Your task to perform on an android device: Search for Mexican restaurants on Maps Image 0: 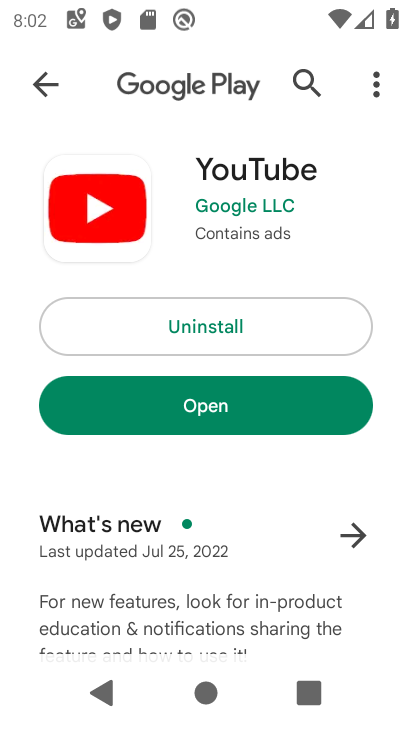
Step 0: press home button
Your task to perform on an android device: Search for Mexican restaurants on Maps Image 1: 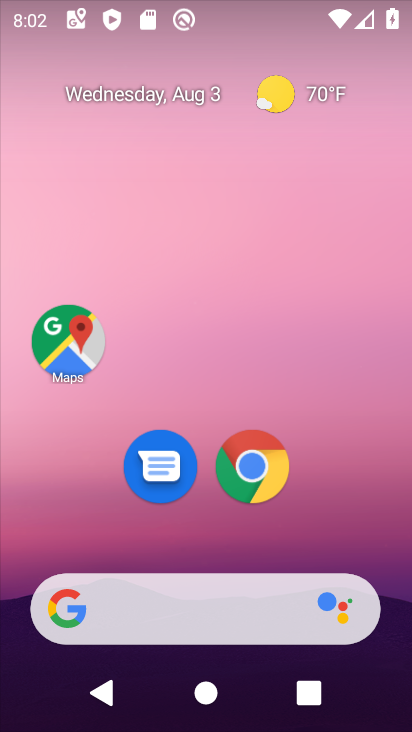
Step 1: drag from (326, 531) to (341, 58)
Your task to perform on an android device: Search for Mexican restaurants on Maps Image 2: 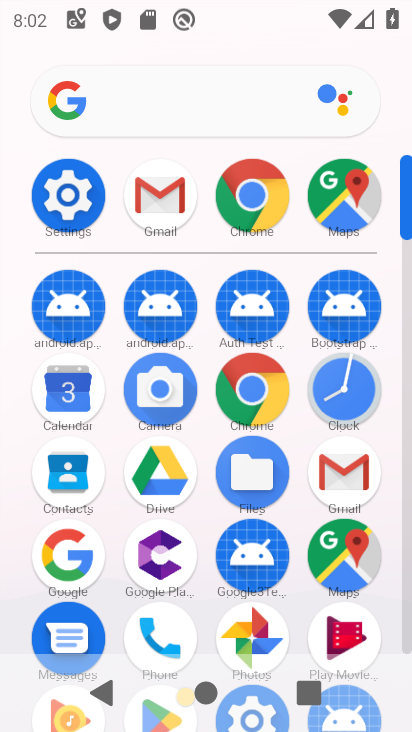
Step 2: click (343, 558)
Your task to perform on an android device: Search for Mexican restaurants on Maps Image 3: 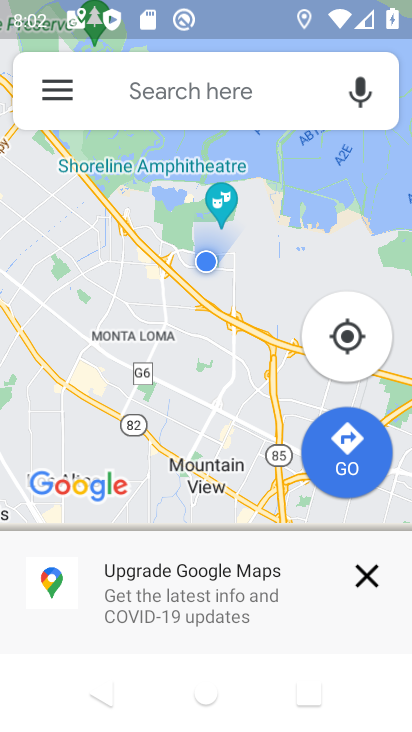
Step 3: click (177, 98)
Your task to perform on an android device: Search for Mexican restaurants on Maps Image 4: 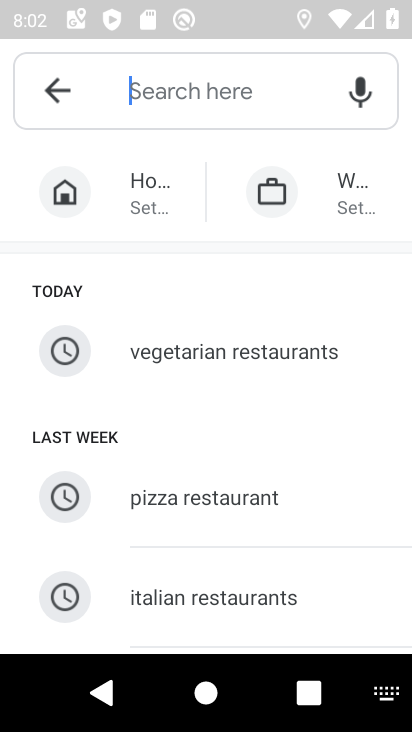
Step 4: type "Mexican restaurants"
Your task to perform on an android device: Search for Mexican restaurants on Maps Image 5: 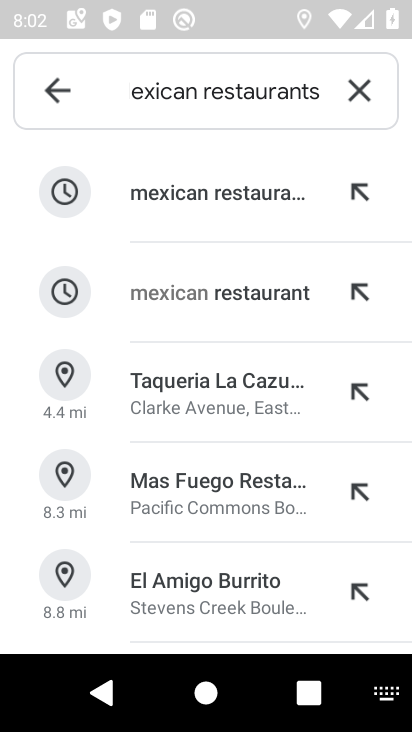
Step 5: press enter
Your task to perform on an android device: Search for Mexican restaurants on Maps Image 6: 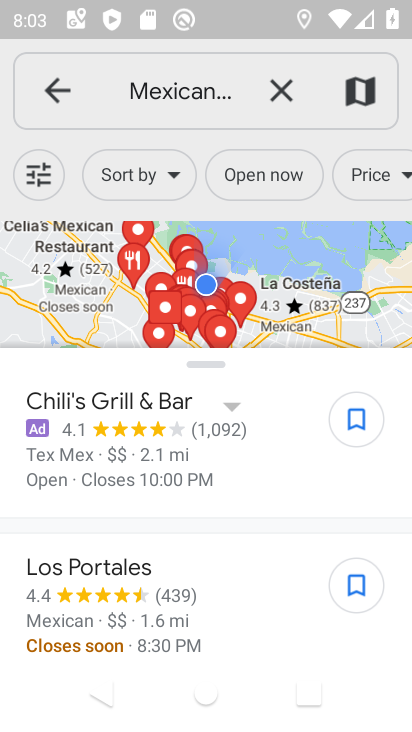
Step 6: task complete